Your task to perform on an android device: Open Android settings Image 0: 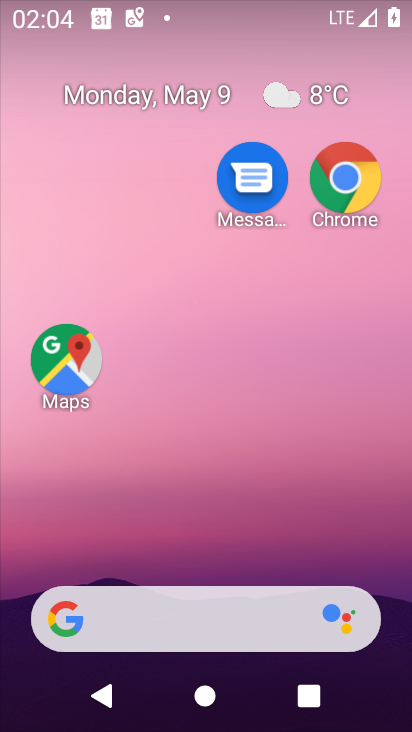
Step 0: drag from (232, 518) to (190, 8)
Your task to perform on an android device: Open Android settings Image 1: 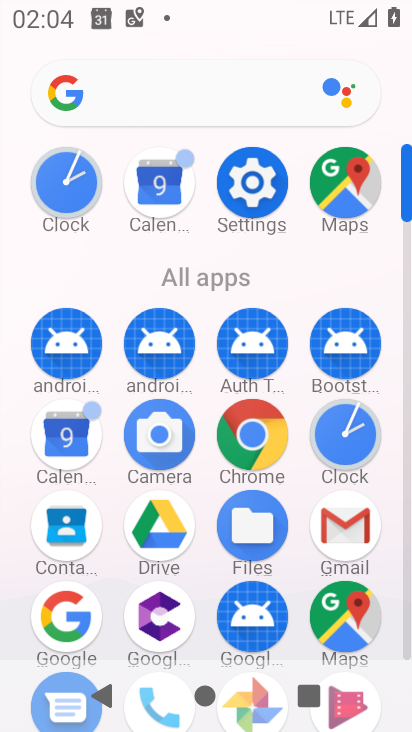
Step 1: click (268, 185)
Your task to perform on an android device: Open Android settings Image 2: 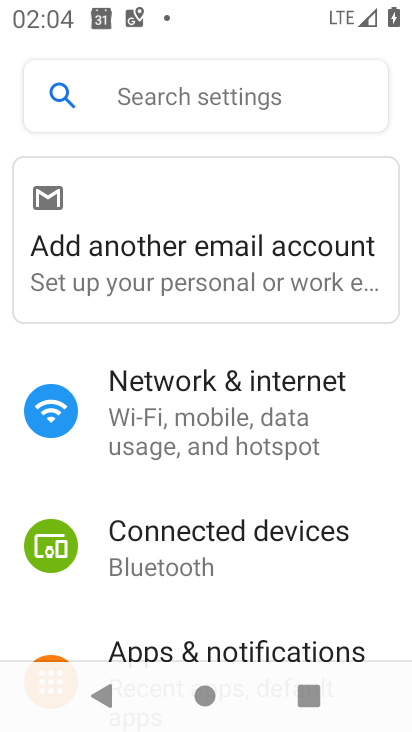
Step 2: task complete